Your task to perform on an android device: allow cookies in the chrome app Image 0: 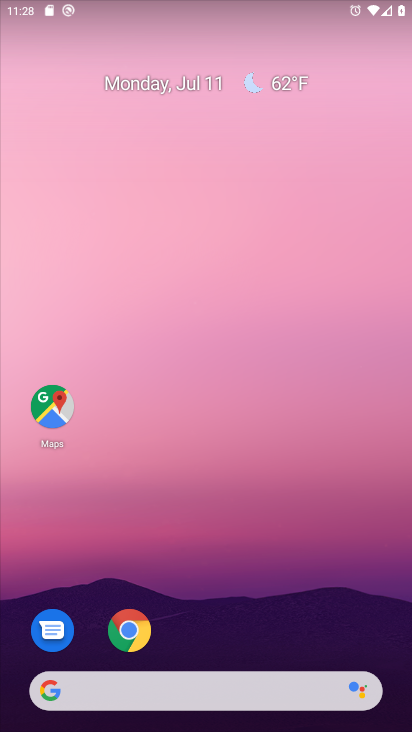
Step 0: click (137, 624)
Your task to perform on an android device: allow cookies in the chrome app Image 1: 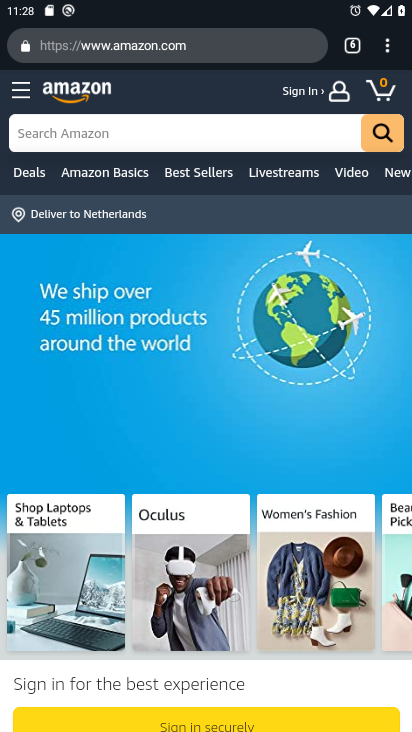
Step 1: click (389, 47)
Your task to perform on an android device: allow cookies in the chrome app Image 2: 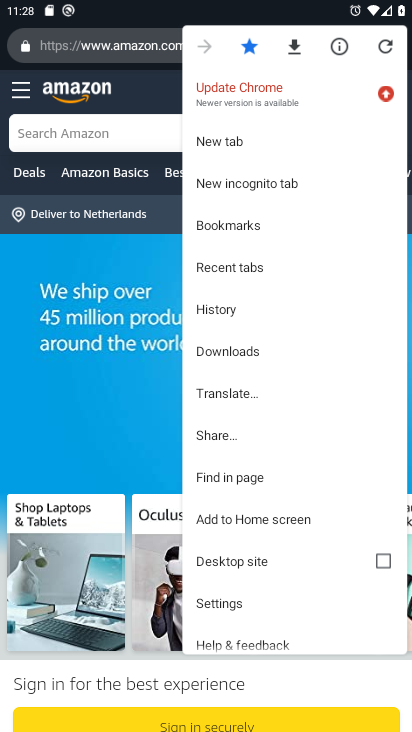
Step 2: click (232, 599)
Your task to perform on an android device: allow cookies in the chrome app Image 3: 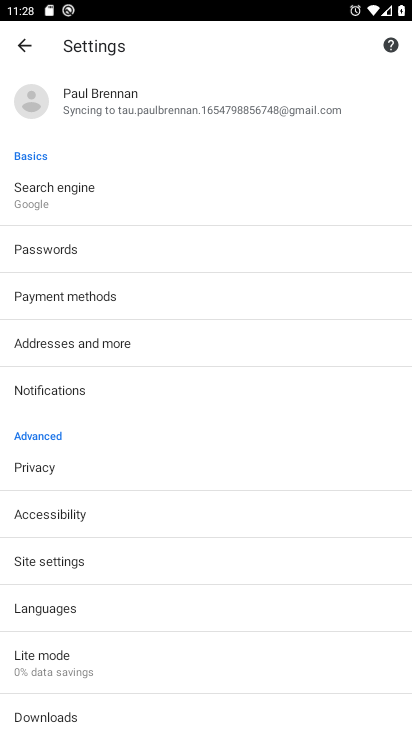
Step 3: click (187, 563)
Your task to perform on an android device: allow cookies in the chrome app Image 4: 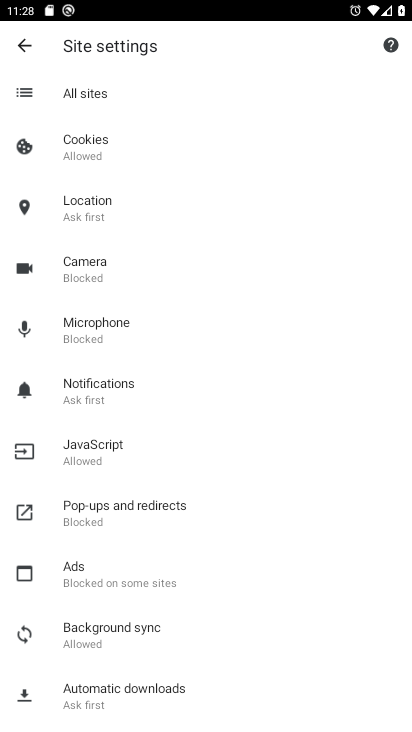
Step 4: click (83, 144)
Your task to perform on an android device: allow cookies in the chrome app Image 5: 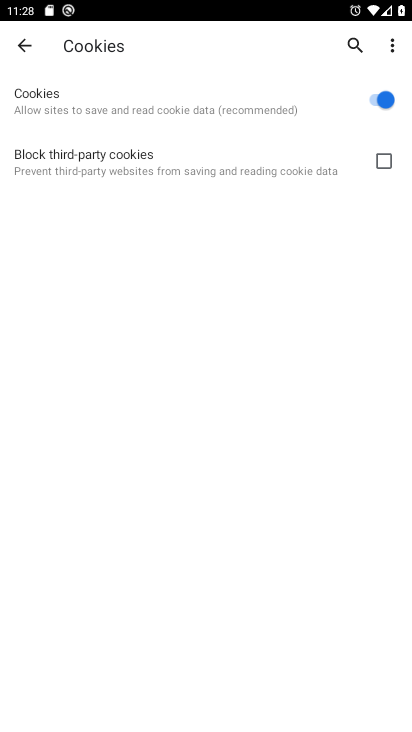
Step 5: task complete